Your task to perform on an android device: create a new album in the google photos Image 0: 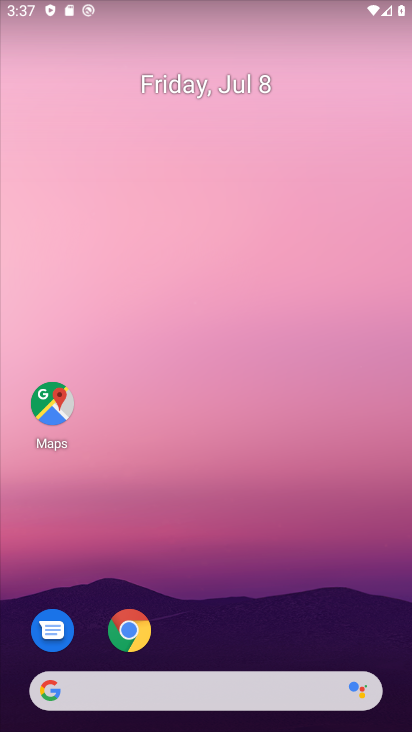
Step 0: drag from (59, 685) to (297, 61)
Your task to perform on an android device: create a new album in the google photos Image 1: 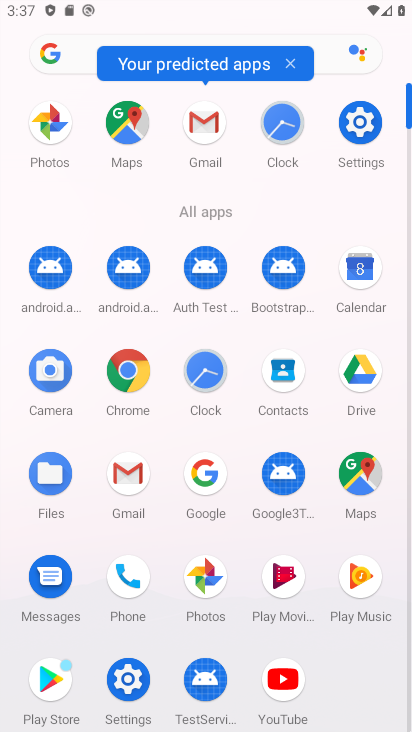
Step 1: click (214, 582)
Your task to perform on an android device: create a new album in the google photos Image 2: 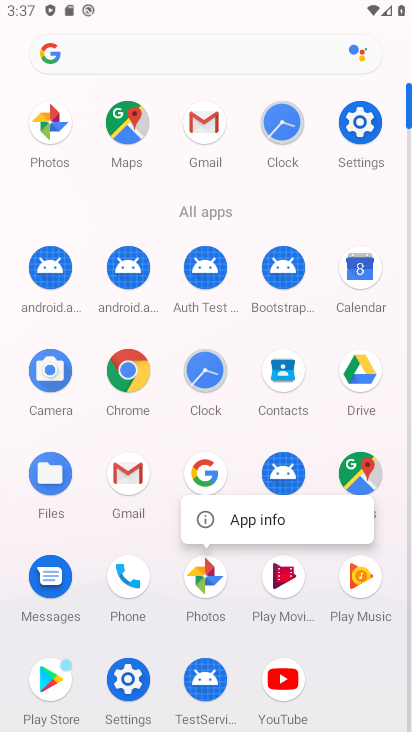
Step 2: click (187, 588)
Your task to perform on an android device: create a new album in the google photos Image 3: 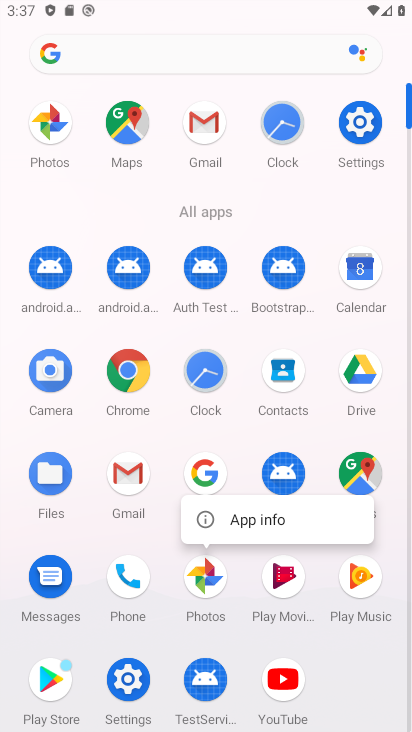
Step 3: click (204, 578)
Your task to perform on an android device: create a new album in the google photos Image 4: 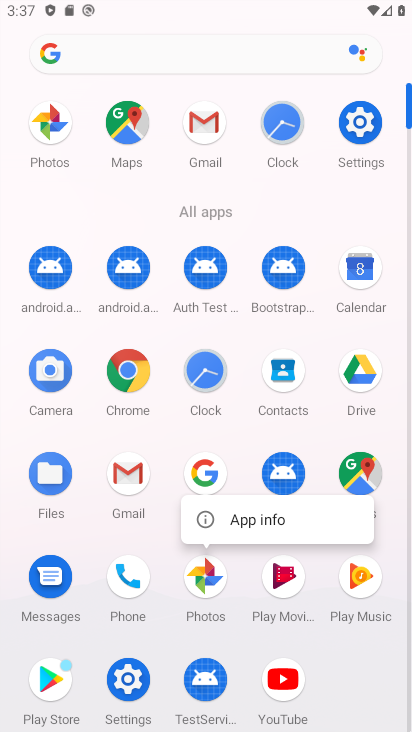
Step 4: click (207, 584)
Your task to perform on an android device: create a new album in the google photos Image 5: 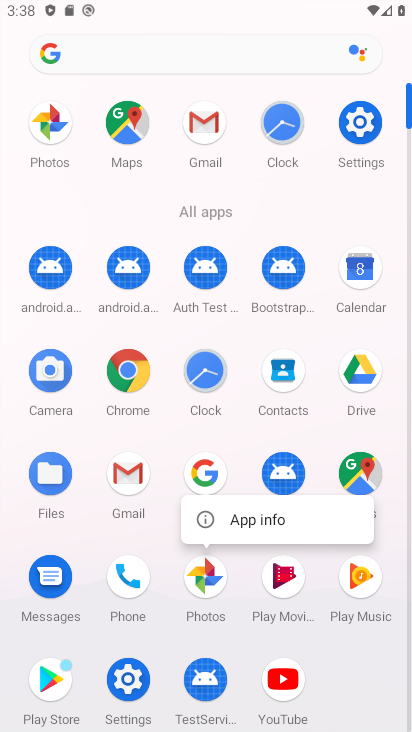
Step 5: task complete